Your task to perform on an android device: change alarm snooze length Image 0: 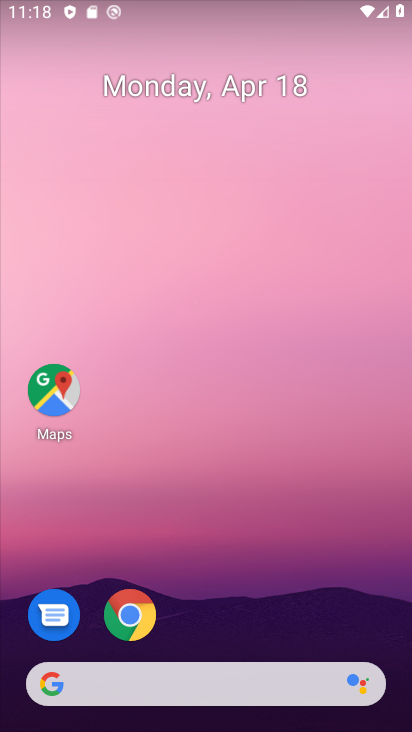
Step 0: drag from (210, 643) to (216, 230)
Your task to perform on an android device: change alarm snooze length Image 1: 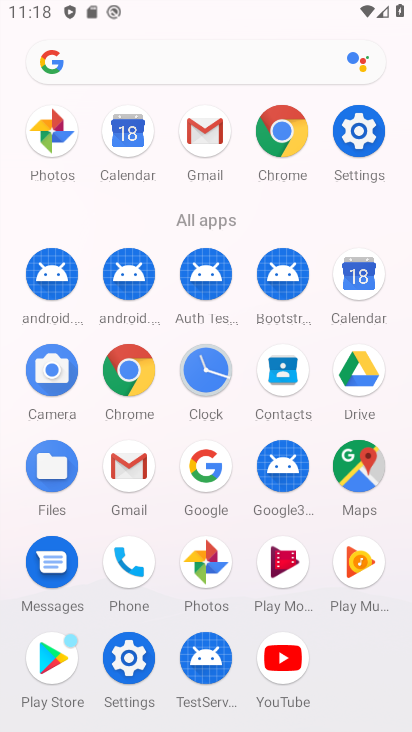
Step 1: click (208, 364)
Your task to perform on an android device: change alarm snooze length Image 2: 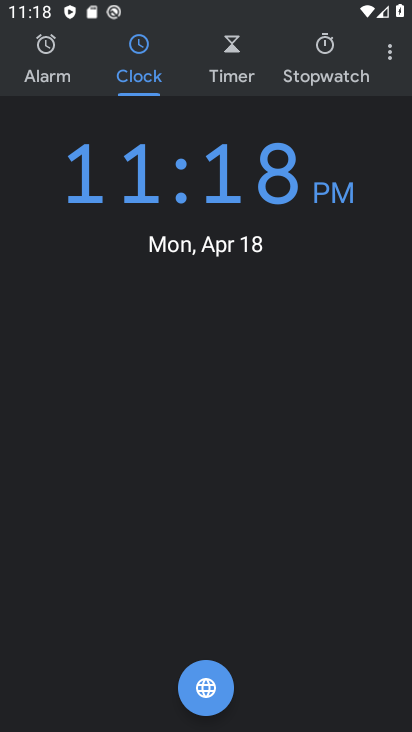
Step 2: click (388, 46)
Your task to perform on an android device: change alarm snooze length Image 3: 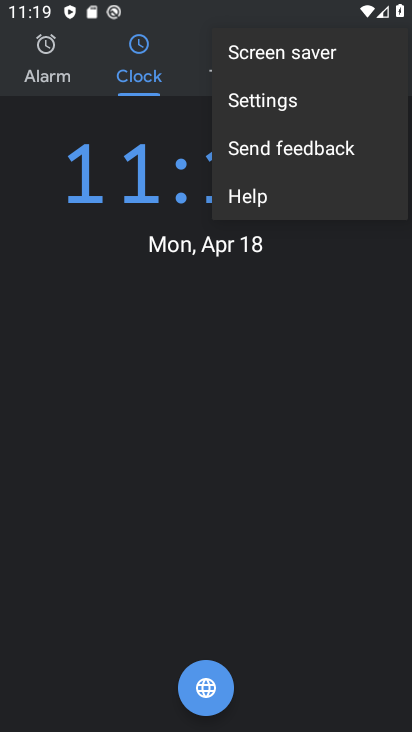
Step 3: click (264, 107)
Your task to perform on an android device: change alarm snooze length Image 4: 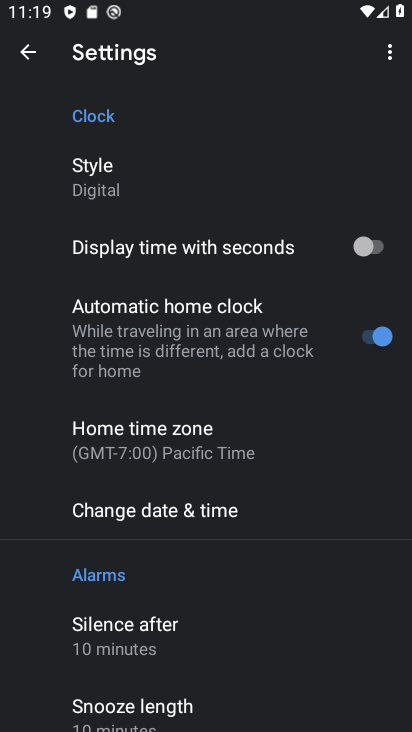
Step 4: drag from (267, 653) to (253, 273)
Your task to perform on an android device: change alarm snooze length Image 5: 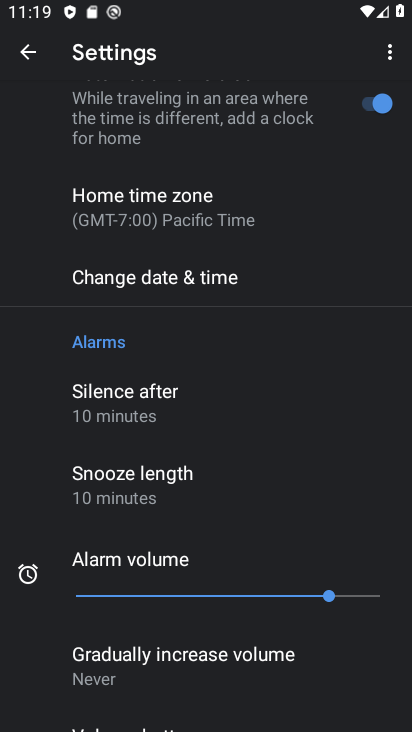
Step 5: click (215, 468)
Your task to perform on an android device: change alarm snooze length Image 6: 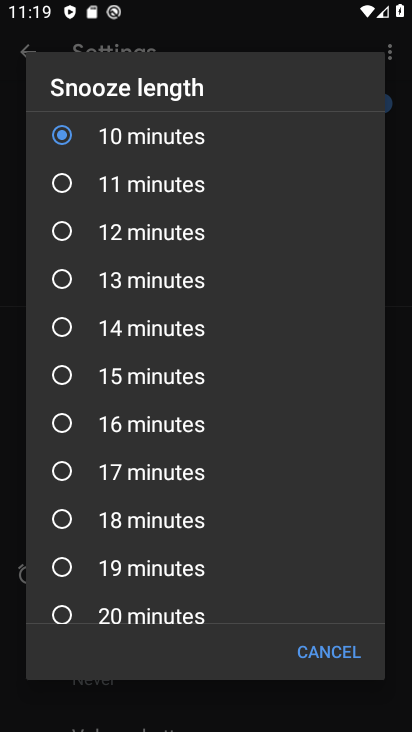
Step 6: click (162, 423)
Your task to perform on an android device: change alarm snooze length Image 7: 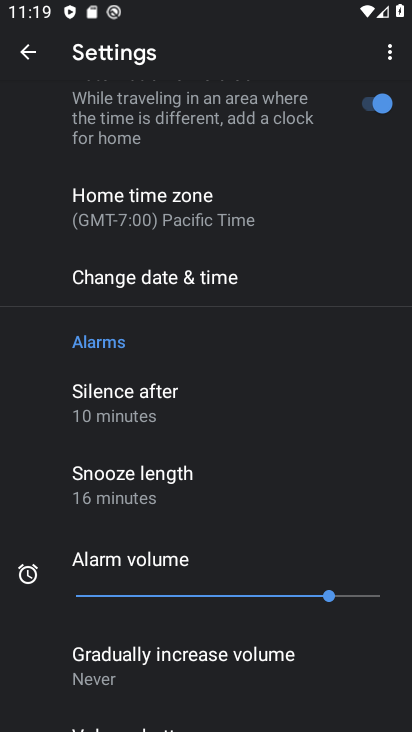
Step 7: task complete